Your task to perform on an android device: check google app version Image 0: 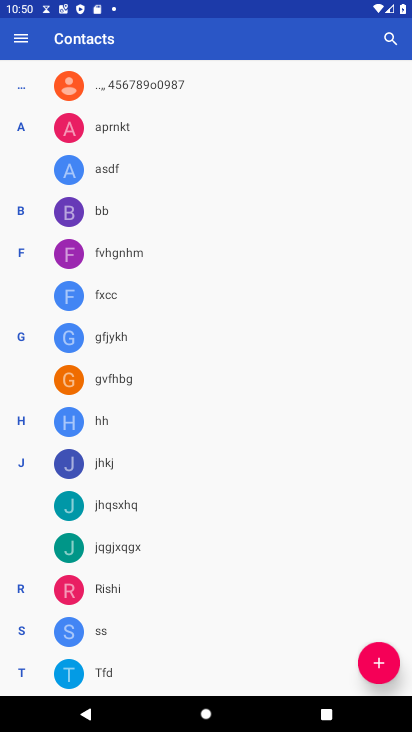
Step 0: press home button
Your task to perform on an android device: check google app version Image 1: 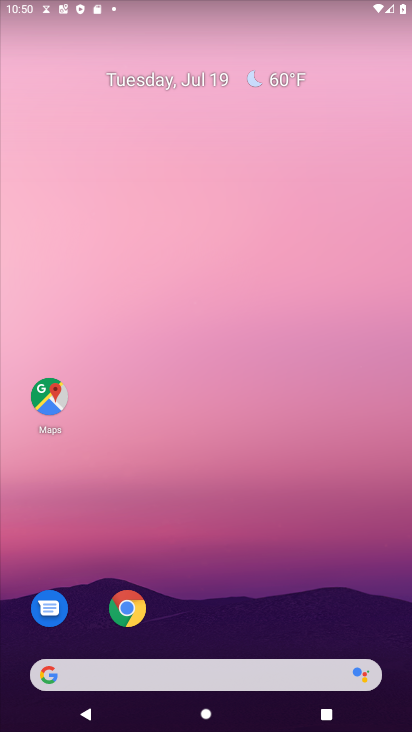
Step 1: drag from (300, 570) to (259, 45)
Your task to perform on an android device: check google app version Image 2: 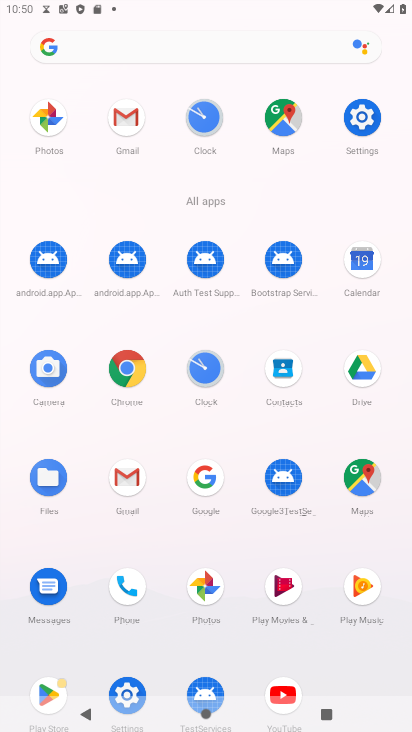
Step 2: click (203, 484)
Your task to perform on an android device: check google app version Image 3: 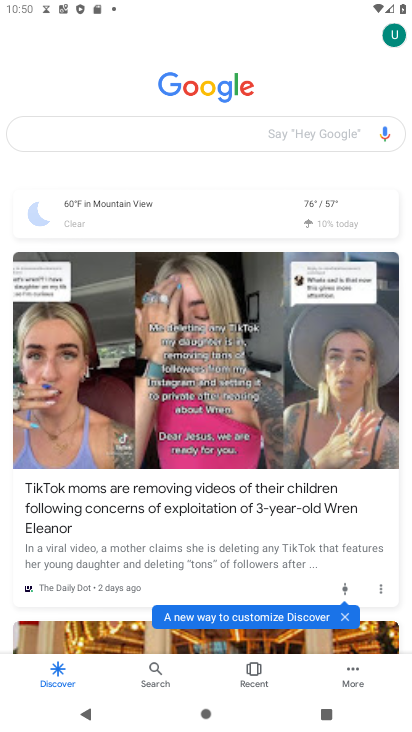
Step 3: click (357, 689)
Your task to perform on an android device: check google app version Image 4: 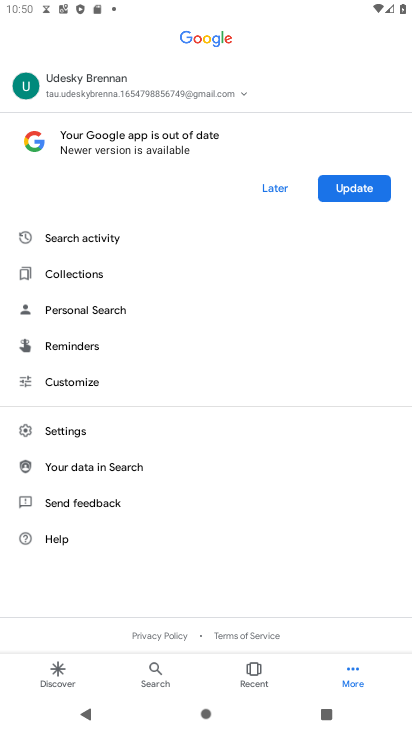
Step 4: click (57, 431)
Your task to perform on an android device: check google app version Image 5: 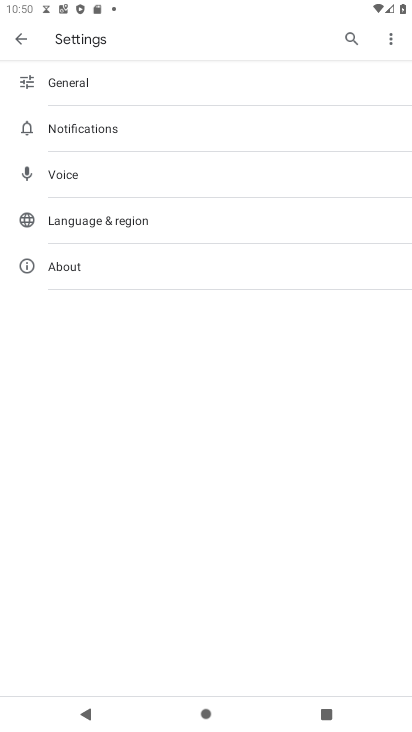
Step 5: click (49, 261)
Your task to perform on an android device: check google app version Image 6: 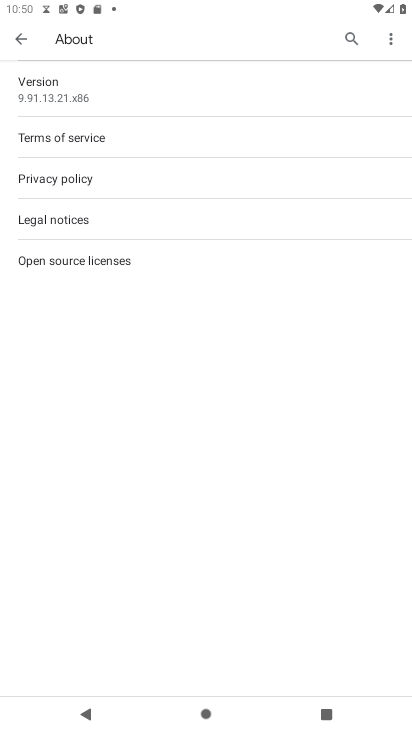
Step 6: click (50, 90)
Your task to perform on an android device: check google app version Image 7: 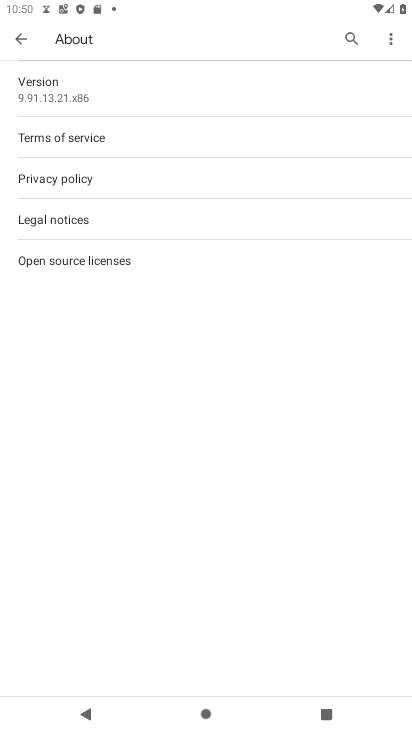
Step 7: task complete